Your task to perform on an android device: turn off notifications in google photos Image 0: 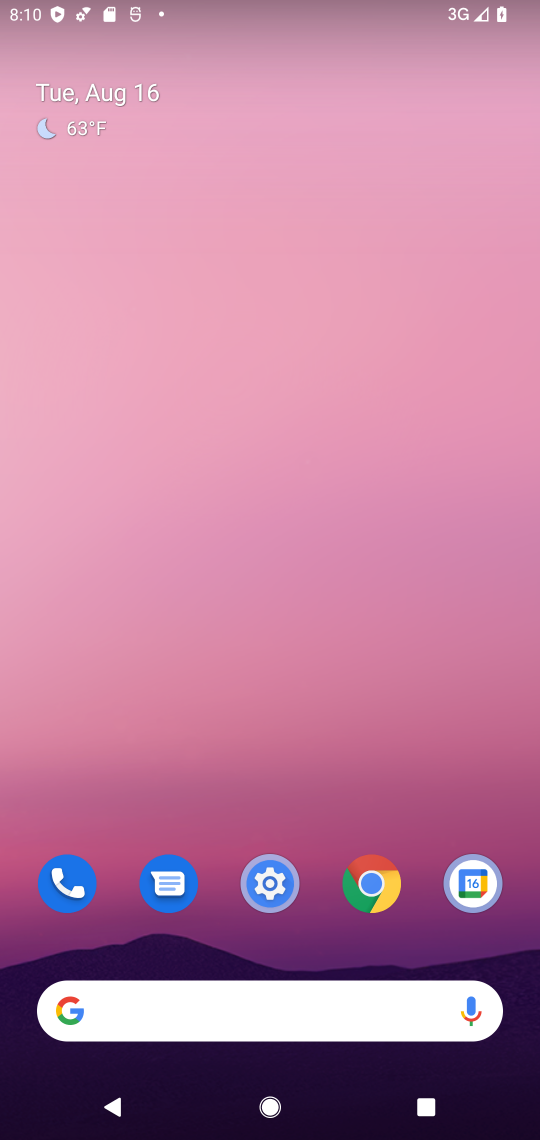
Step 0: drag from (434, 832) to (414, 250)
Your task to perform on an android device: turn off notifications in google photos Image 1: 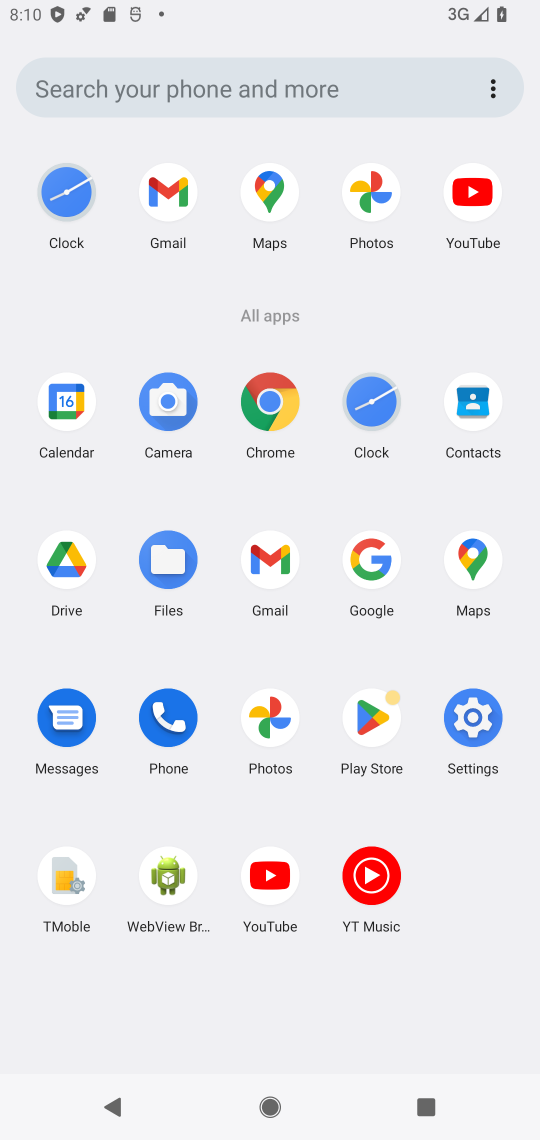
Step 1: click (267, 716)
Your task to perform on an android device: turn off notifications in google photos Image 2: 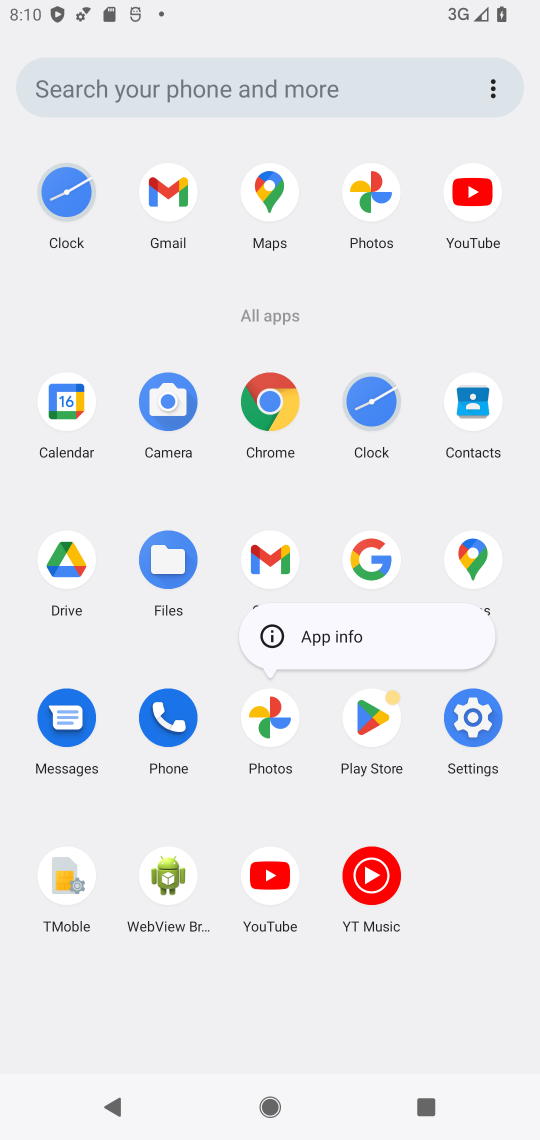
Step 2: click (337, 626)
Your task to perform on an android device: turn off notifications in google photos Image 3: 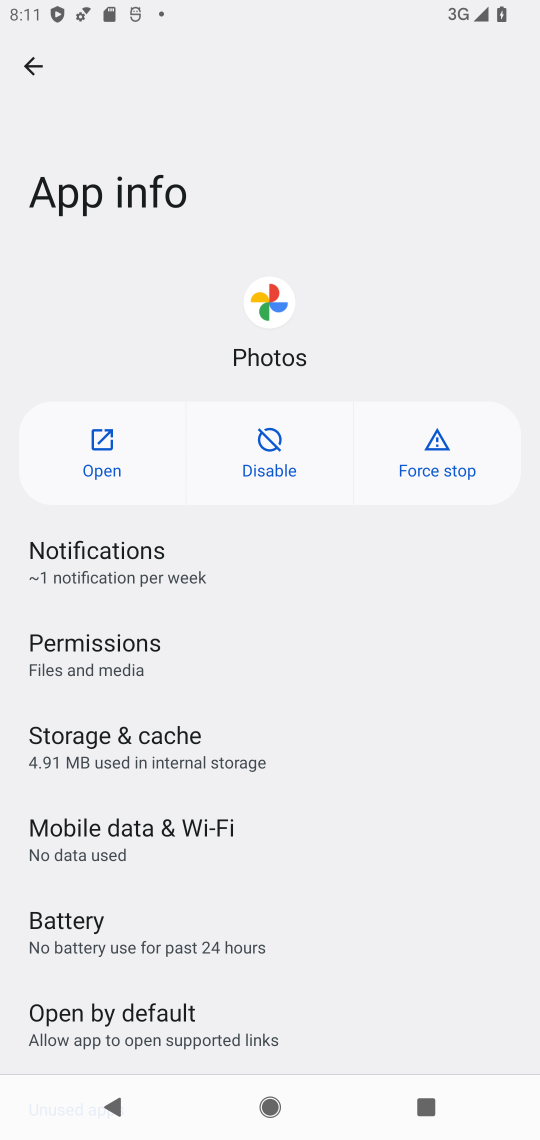
Step 3: click (228, 552)
Your task to perform on an android device: turn off notifications in google photos Image 4: 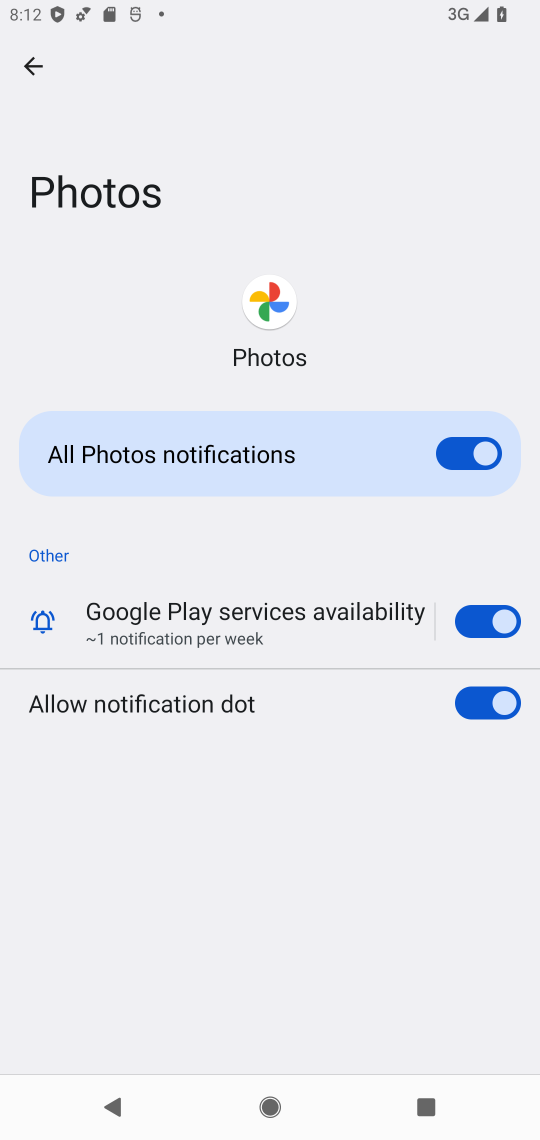
Step 4: click (452, 466)
Your task to perform on an android device: turn off notifications in google photos Image 5: 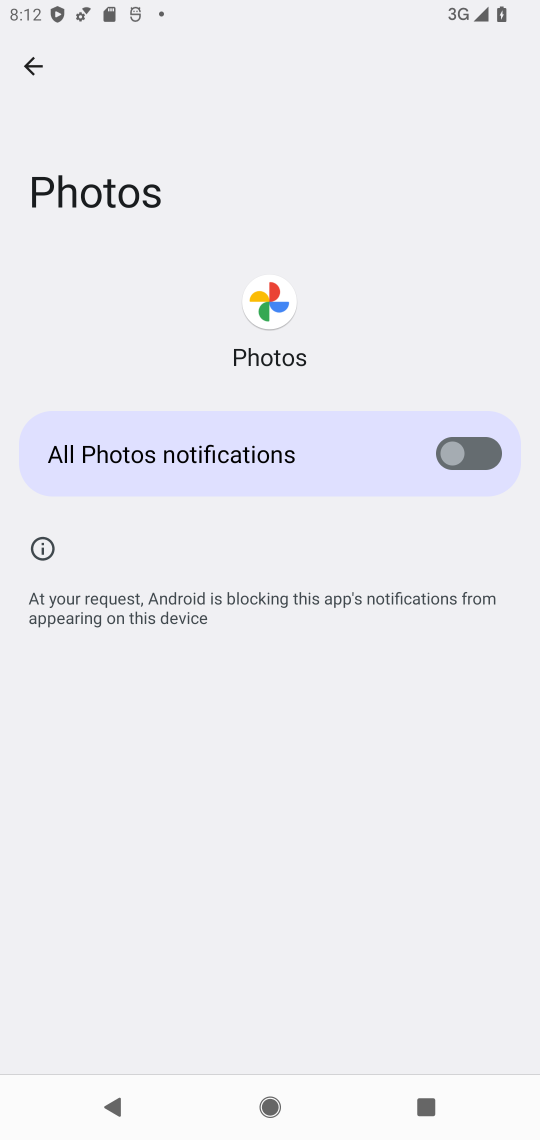
Step 5: task complete